Your task to perform on an android device: add a contact in the contacts app Image 0: 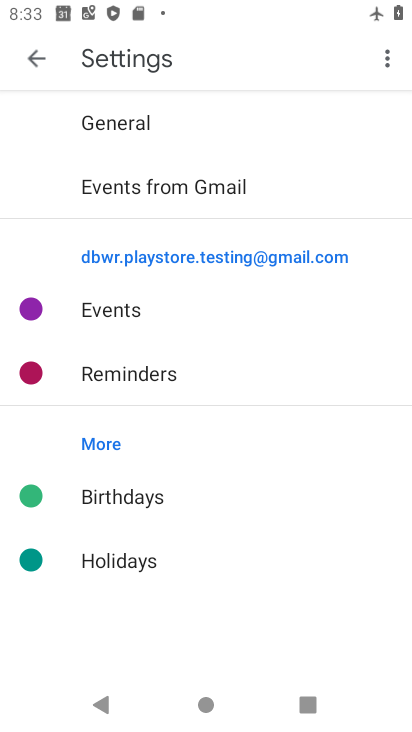
Step 0: press home button
Your task to perform on an android device: add a contact in the contacts app Image 1: 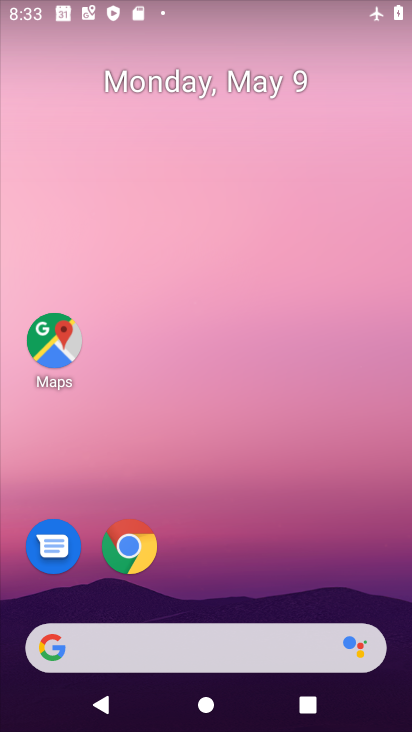
Step 1: drag from (249, 701) to (351, 43)
Your task to perform on an android device: add a contact in the contacts app Image 2: 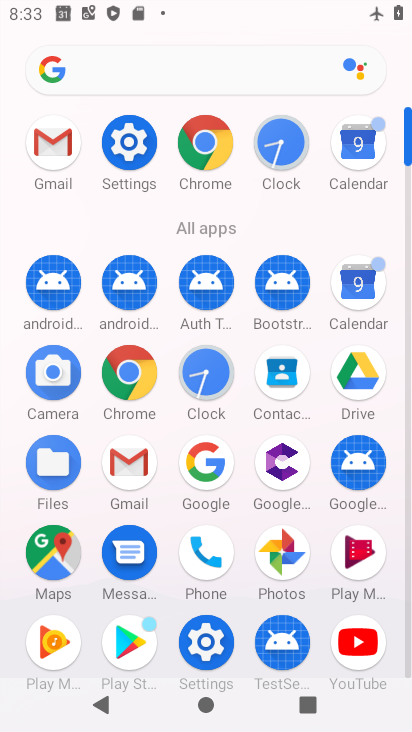
Step 2: click (277, 369)
Your task to perform on an android device: add a contact in the contacts app Image 3: 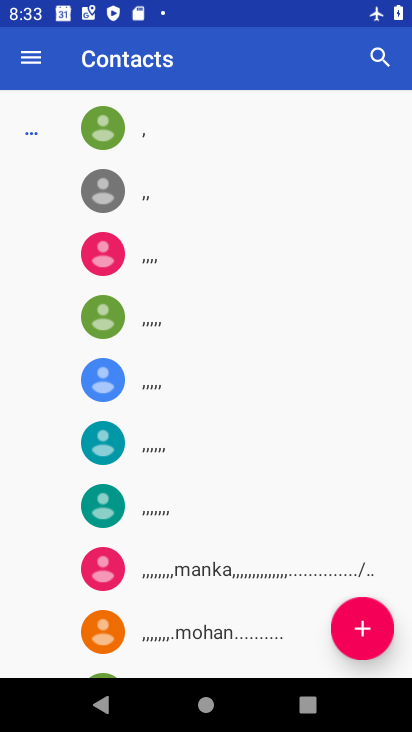
Step 3: click (370, 630)
Your task to perform on an android device: add a contact in the contacts app Image 4: 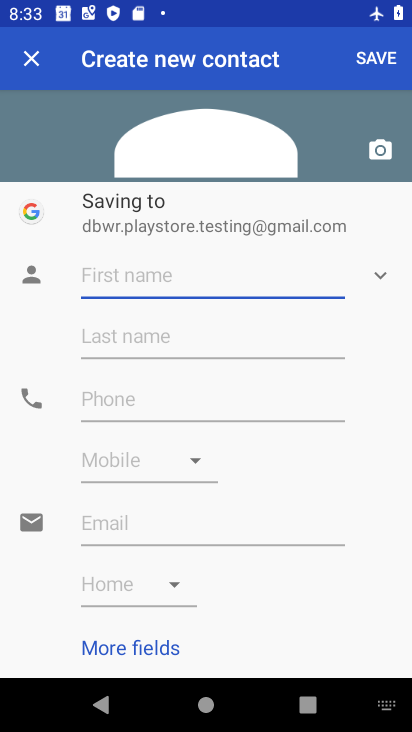
Step 4: type "hg"
Your task to perform on an android device: add a contact in the contacts app Image 5: 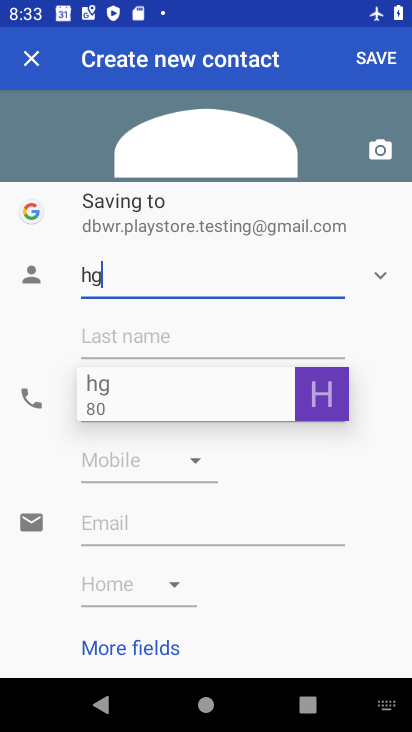
Step 5: click (230, 338)
Your task to perform on an android device: add a contact in the contacts app Image 6: 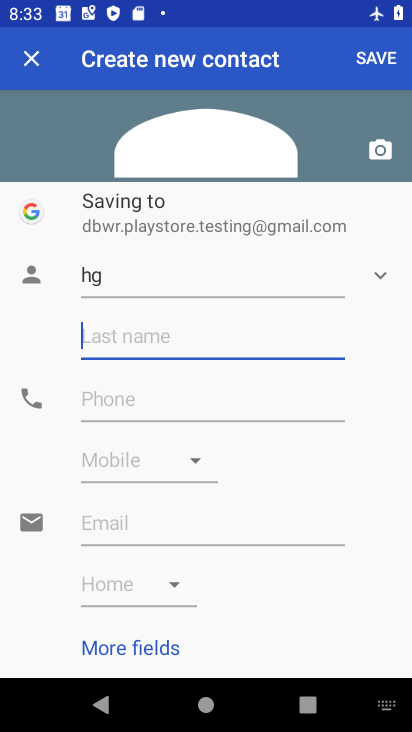
Step 6: click (152, 399)
Your task to perform on an android device: add a contact in the contacts app Image 7: 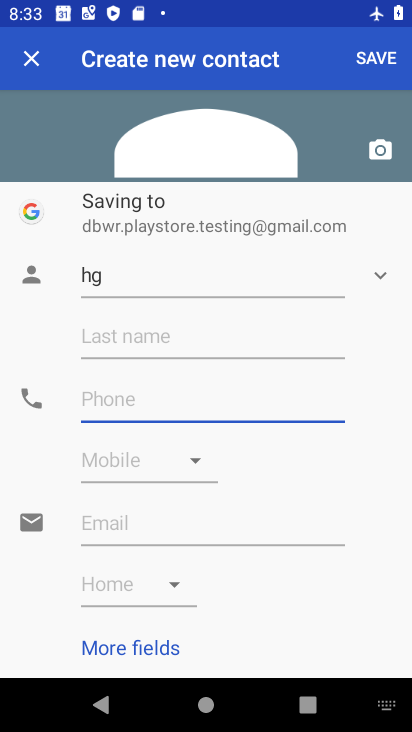
Step 7: type "7868"
Your task to perform on an android device: add a contact in the contacts app Image 8: 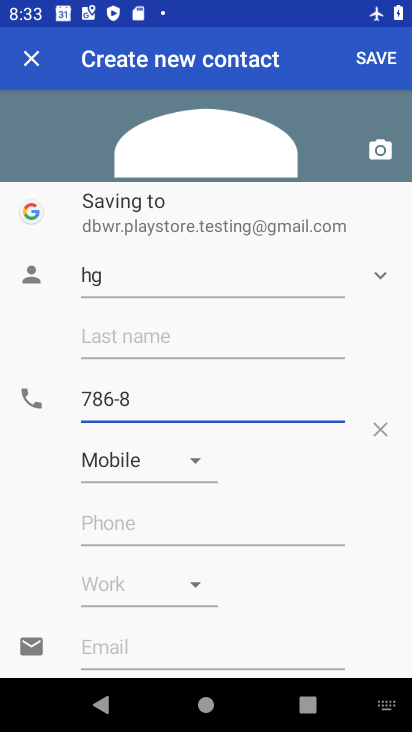
Step 8: click (377, 48)
Your task to perform on an android device: add a contact in the contacts app Image 9: 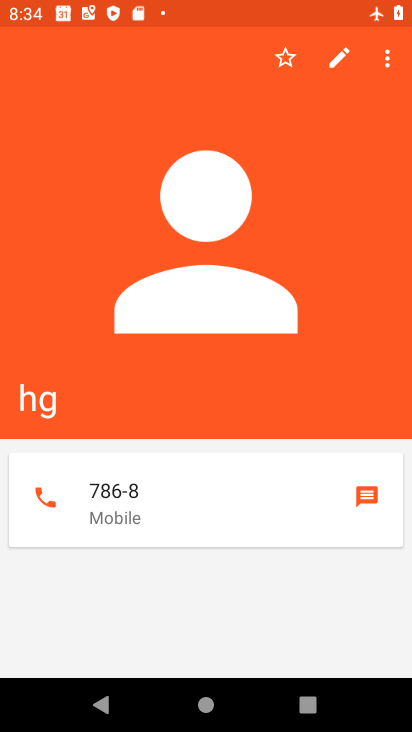
Step 9: task complete